Your task to perform on an android device: toggle wifi Image 0: 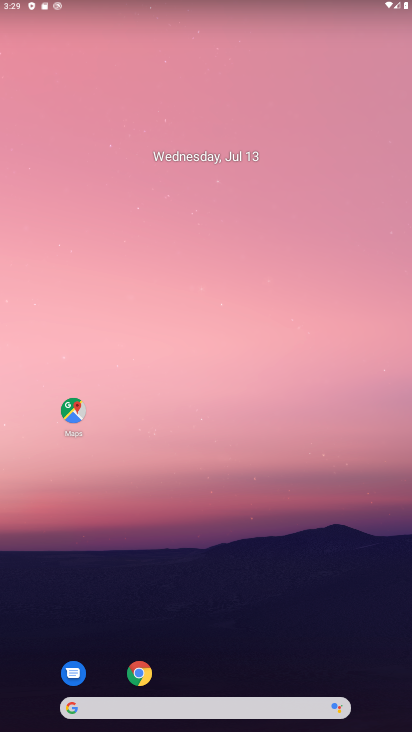
Step 0: drag from (211, 708) to (314, 132)
Your task to perform on an android device: toggle wifi Image 1: 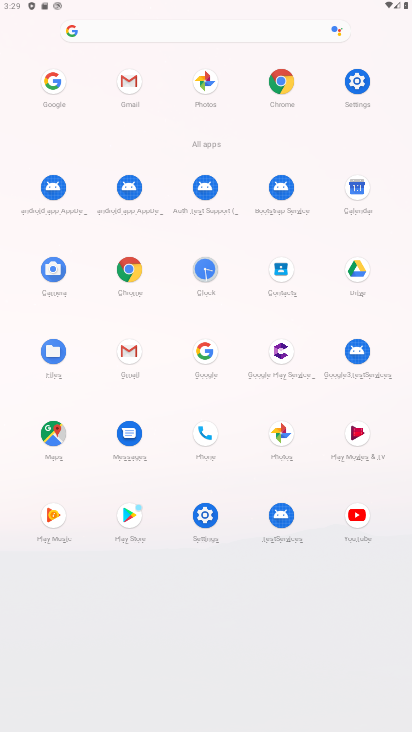
Step 1: click (356, 81)
Your task to perform on an android device: toggle wifi Image 2: 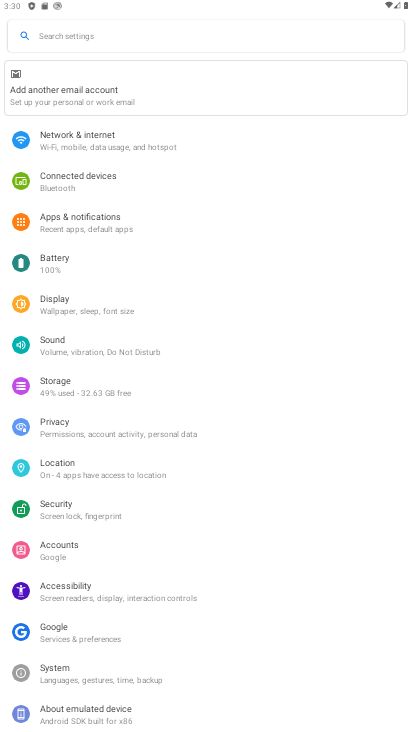
Step 2: click (104, 146)
Your task to perform on an android device: toggle wifi Image 3: 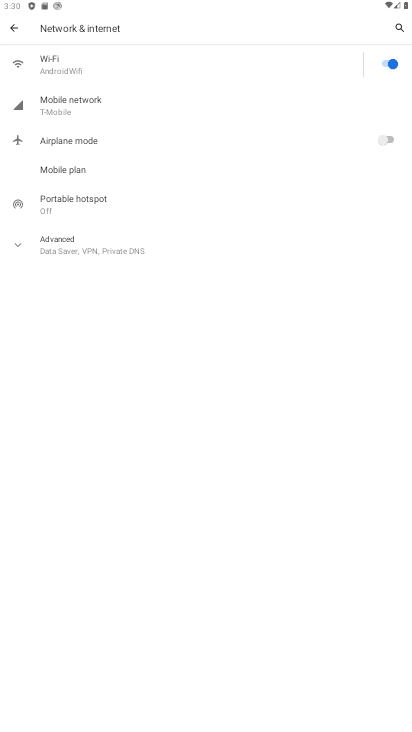
Step 3: click (394, 62)
Your task to perform on an android device: toggle wifi Image 4: 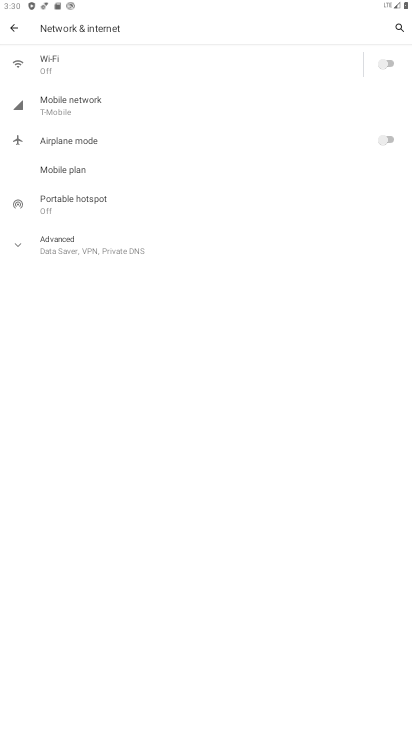
Step 4: task complete